Your task to perform on an android device: turn off sleep mode Image 0: 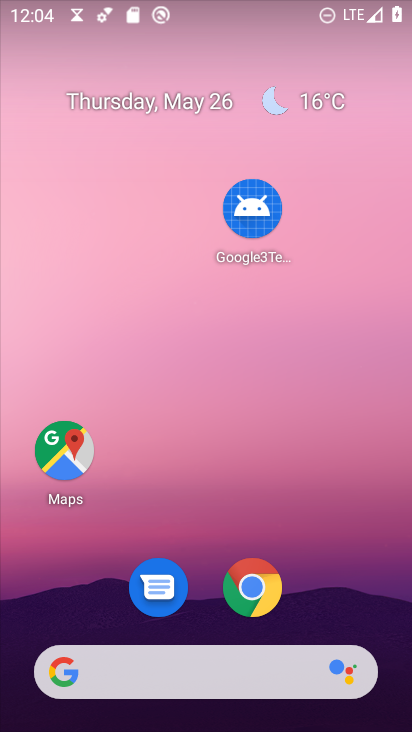
Step 0: click (163, 60)
Your task to perform on an android device: turn off sleep mode Image 1: 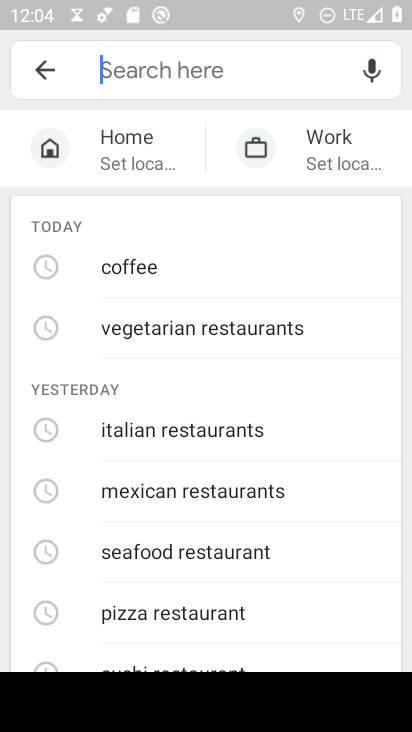
Step 1: press home button
Your task to perform on an android device: turn off sleep mode Image 2: 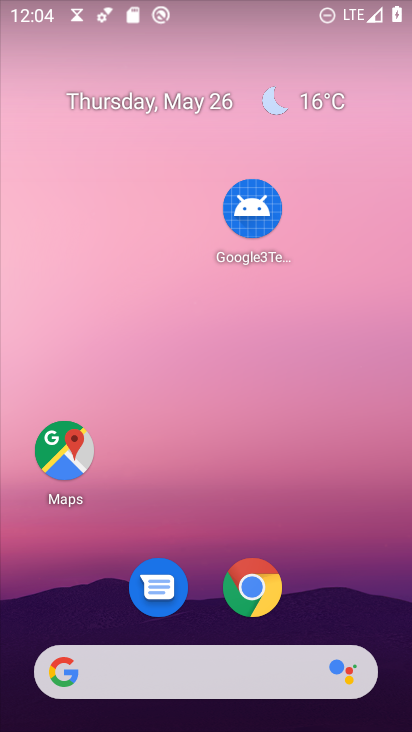
Step 2: press home button
Your task to perform on an android device: turn off sleep mode Image 3: 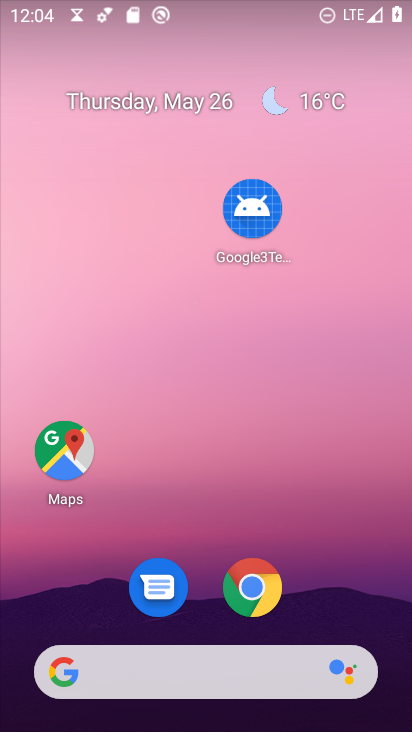
Step 3: press home button
Your task to perform on an android device: turn off sleep mode Image 4: 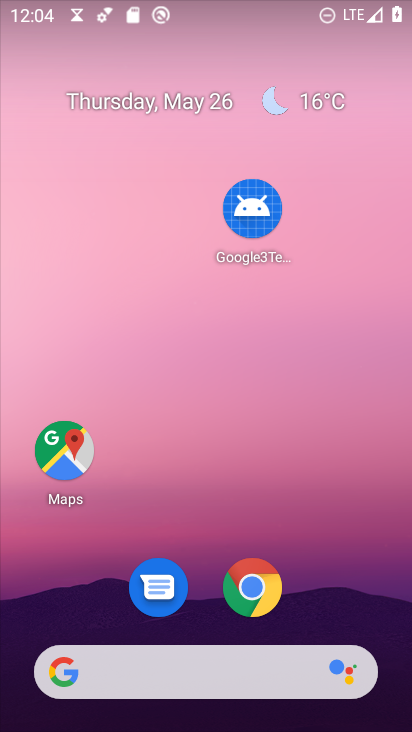
Step 4: press home button
Your task to perform on an android device: turn off sleep mode Image 5: 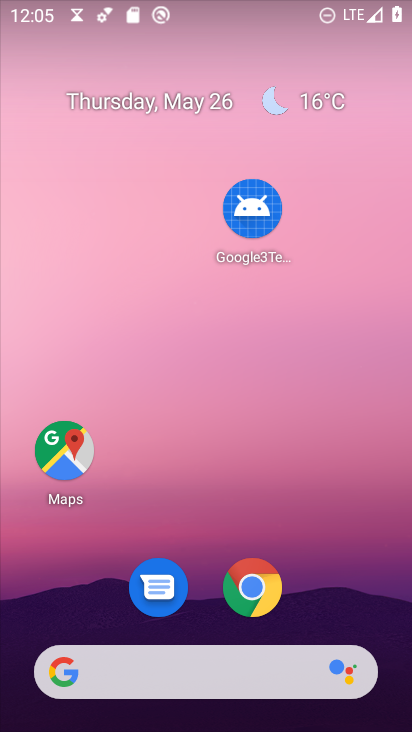
Step 5: press home button
Your task to perform on an android device: turn off sleep mode Image 6: 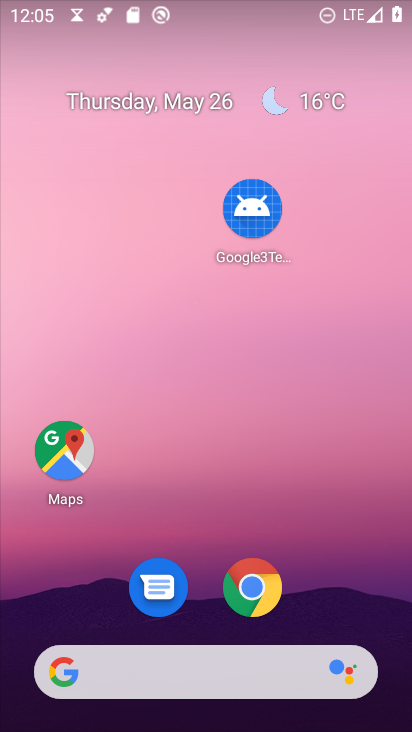
Step 6: drag from (241, 659) to (306, 124)
Your task to perform on an android device: turn off sleep mode Image 7: 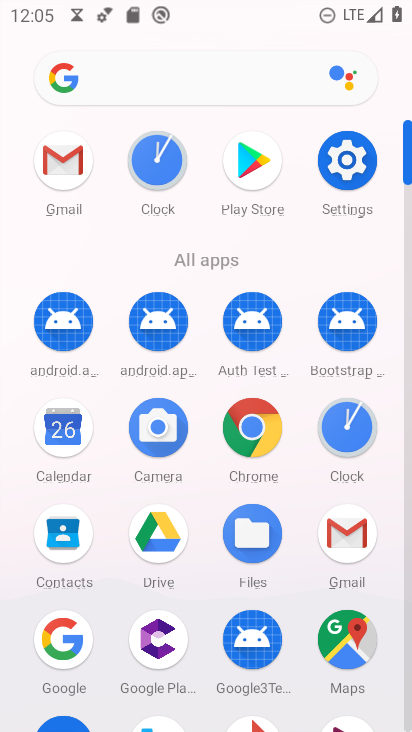
Step 7: click (306, 125)
Your task to perform on an android device: turn off sleep mode Image 8: 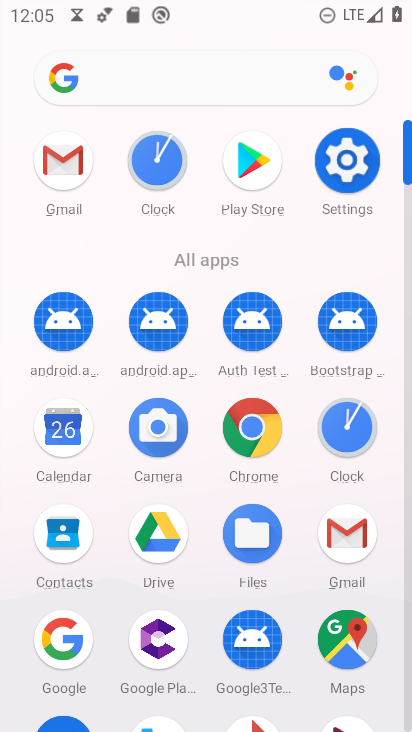
Step 8: click (306, 125)
Your task to perform on an android device: turn off sleep mode Image 9: 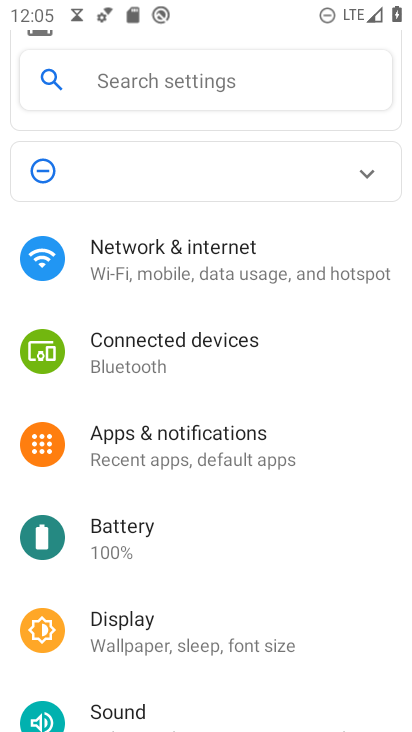
Step 9: click (306, 125)
Your task to perform on an android device: turn off sleep mode Image 10: 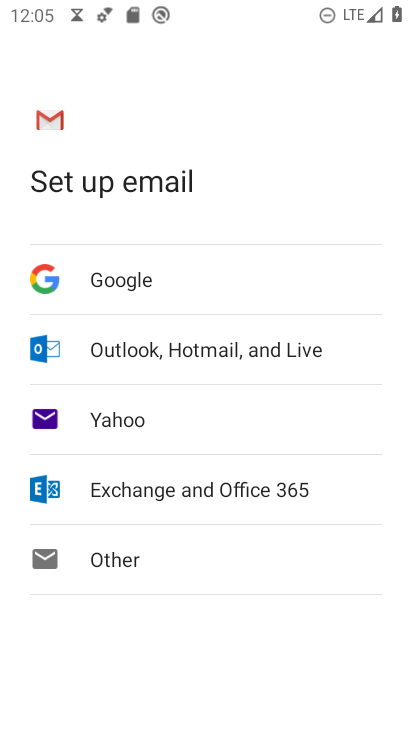
Step 10: click (306, 125)
Your task to perform on an android device: turn off sleep mode Image 11: 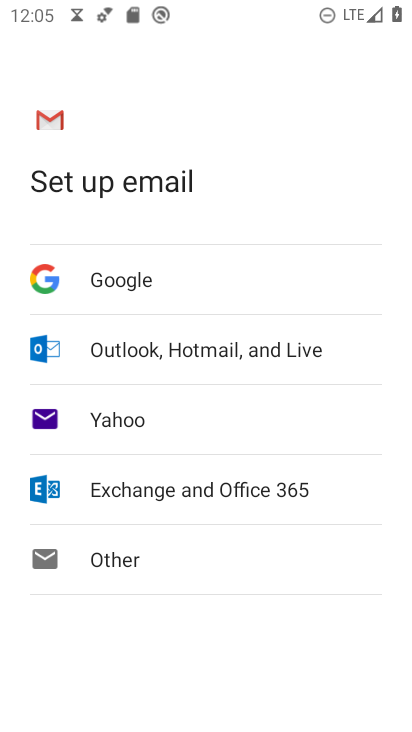
Step 11: click (306, 125)
Your task to perform on an android device: turn off sleep mode Image 12: 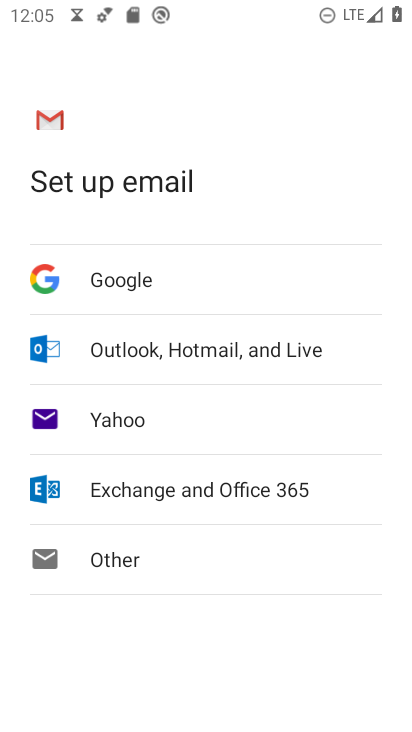
Step 12: click (306, 125)
Your task to perform on an android device: turn off sleep mode Image 13: 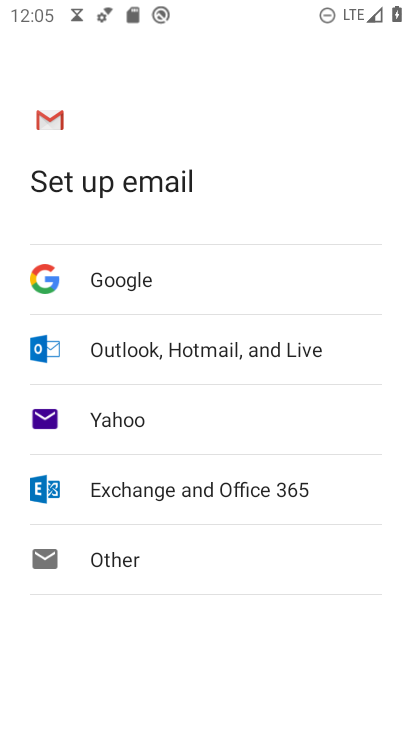
Step 13: click (306, 125)
Your task to perform on an android device: turn off sleep mode Image 14: 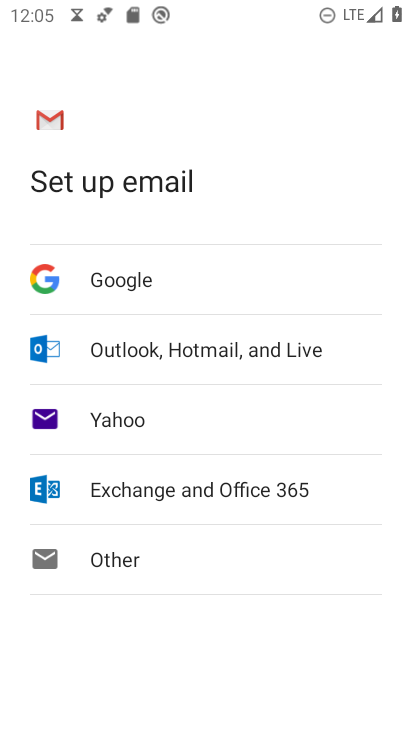
Step 14: click (306, 125)
Your task to perform on an android device: turn off sleep mode Image 15: 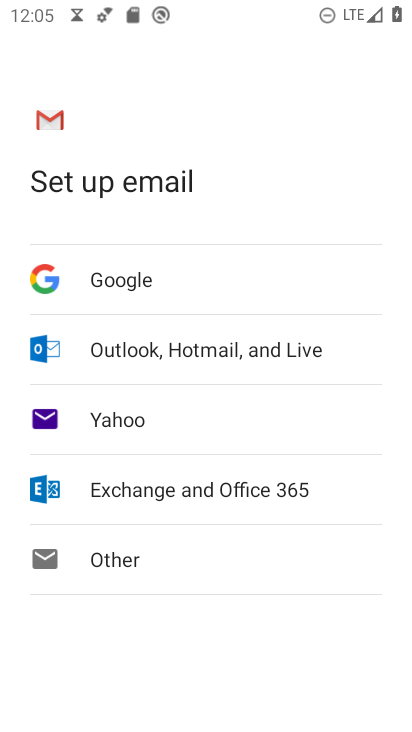
Step 15: click (306, 125)
Your task to perform on an android device: turn off sleep mode Image 16: 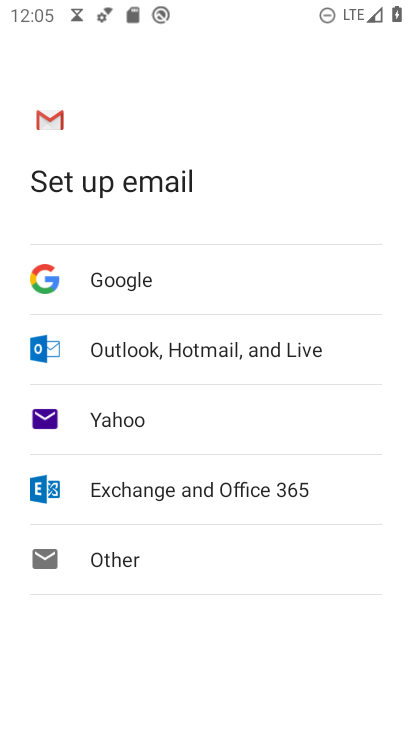
Step 16: press home button
Your task to perform on an android device: turn off sleep mode Image 17: 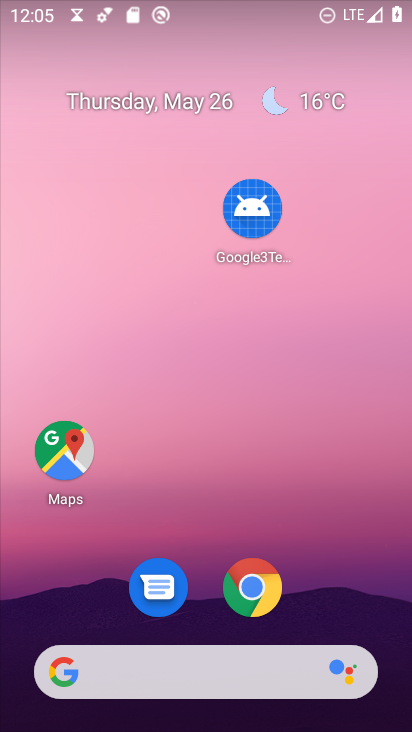
Step 17: drag from (186, 668) to (163, 163)
Your task to perform on an android device: turn off sleep mode Image 18: 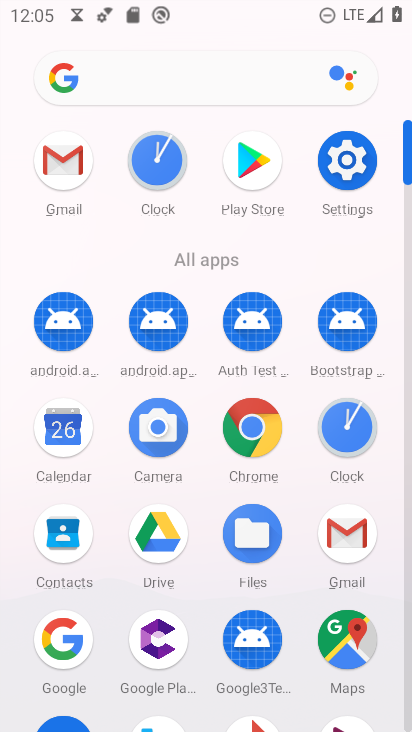
Step 18: click (333, 158)
Your task to perform on an android device: turn off sleep mode Image 19: 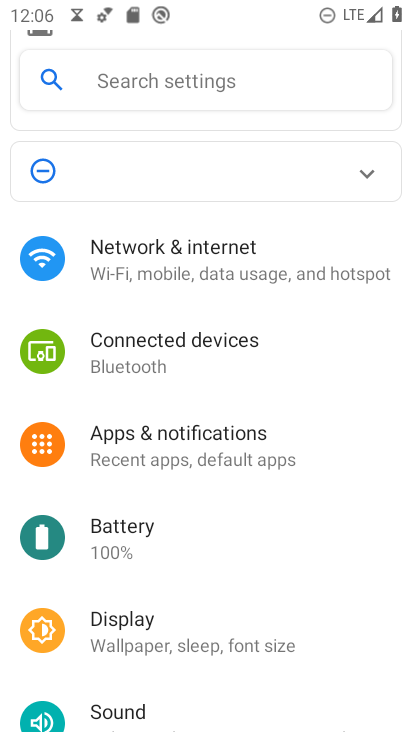
Step 19: click (142, 621)
Your task to perform on an android device: turn off sleep mode Image 20: 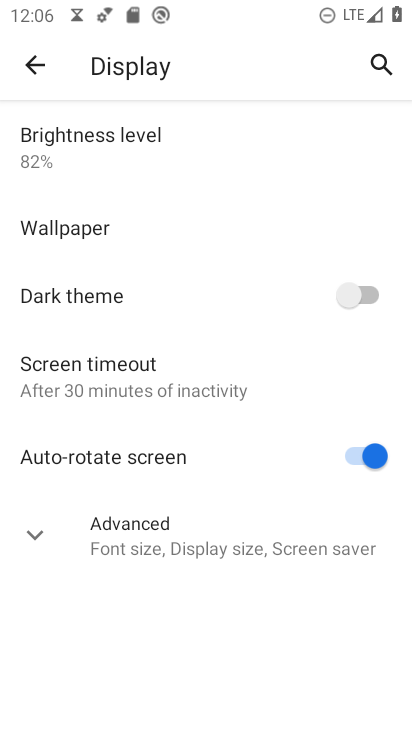
Step 20: click (155, 541)
Your task to perform on an android device: turn off sleep mode Image 21: 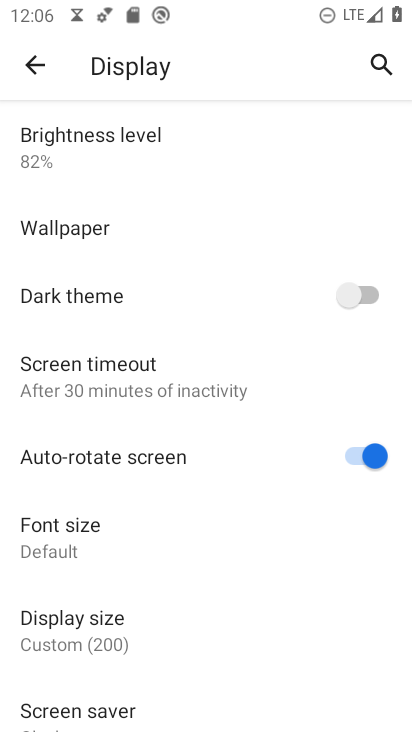
Step 21: task complete